Your task to perform on an android device: Check the news Image 0: 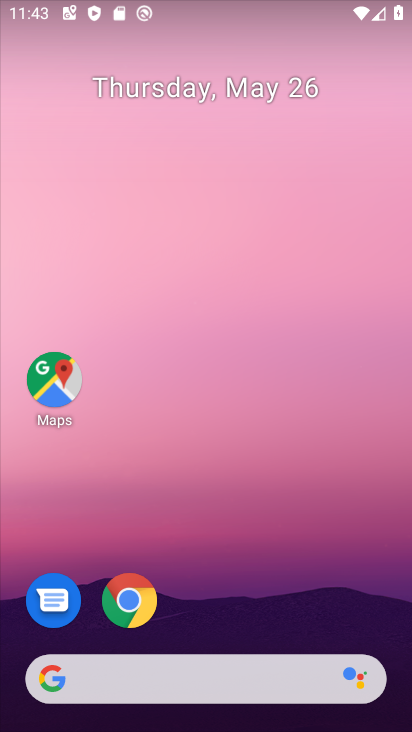
Step 0: click (160, 672)
Your task to perform on an android device: Check the news Image 1: 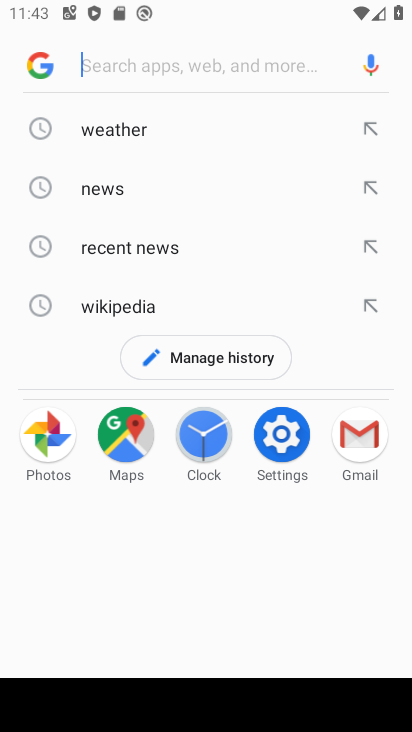
Step 1: click (118, 193)
Your task to perform on an android device: Check the news Image 2: 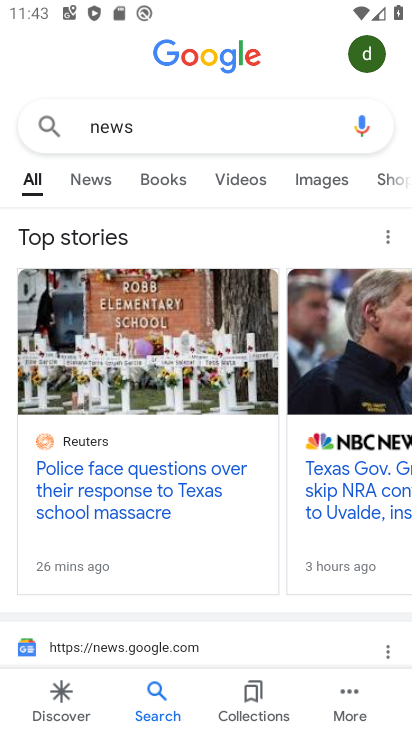
Step 2: task complete